Your task to perform on an android device: move a message to another label in the gmail app Image 0: 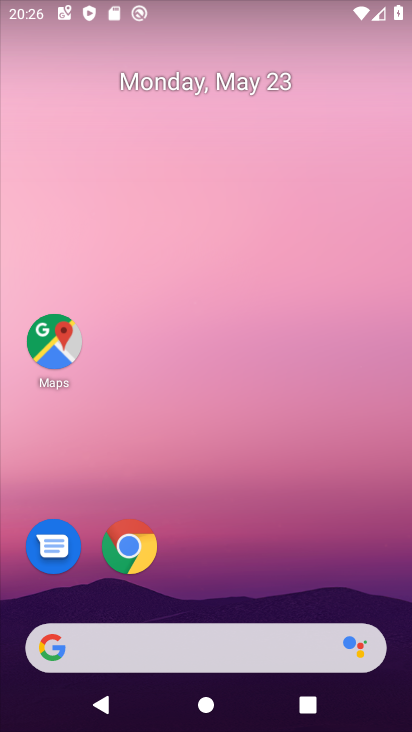
Step 0: drag from (385, 582) to (384, 187)
Your task to perform on an android device: move a message to another label in the gmail app Image 1: 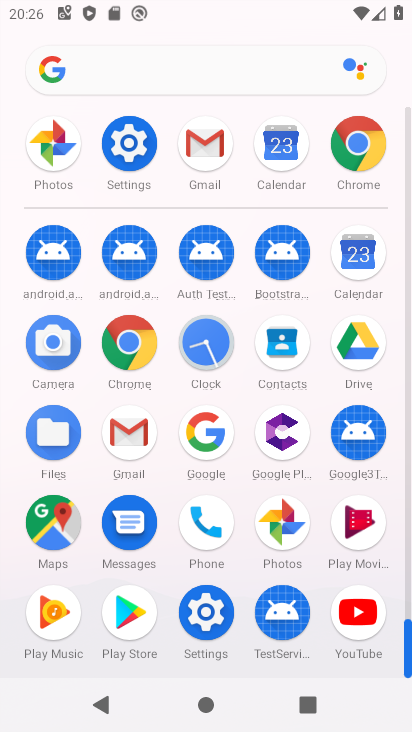
Step 1: click (130, 434)
Your task to perform on an android device: move a message to another label in the gmail app Image 2: 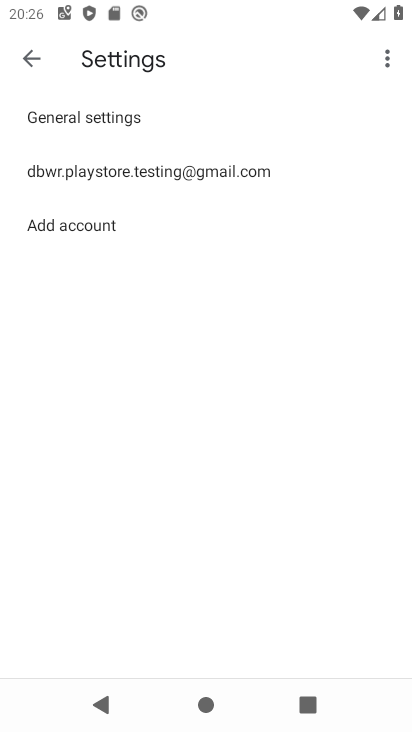
Step 2: click (26, 66)
Your task to perform on an android device: move a message to another label in the gmail app Image 3: 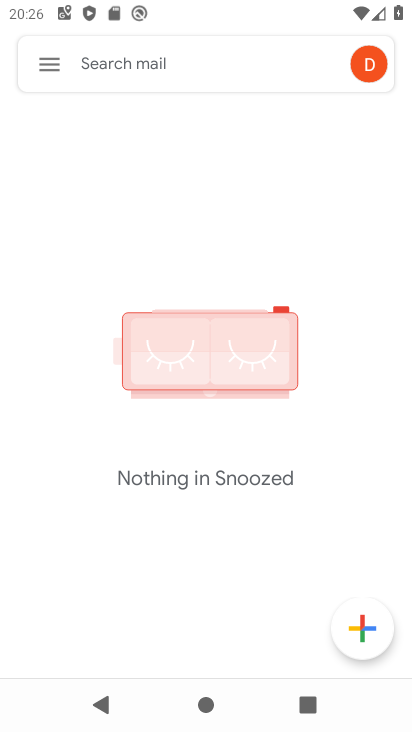
Step 3: click (56, 60)
Your task to perform on an android device: move a message to another label in the gmail app Image 4: 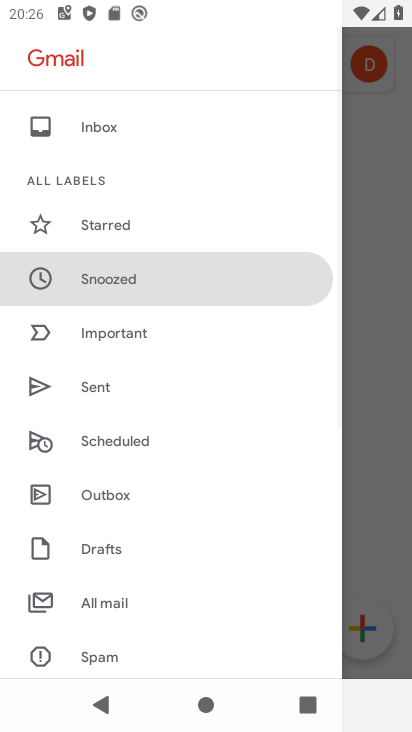
Step 4: drag from (250, 519) to (246, 422)
Your task to perform on an android device: move a message to another label in the gmail app Image 5: 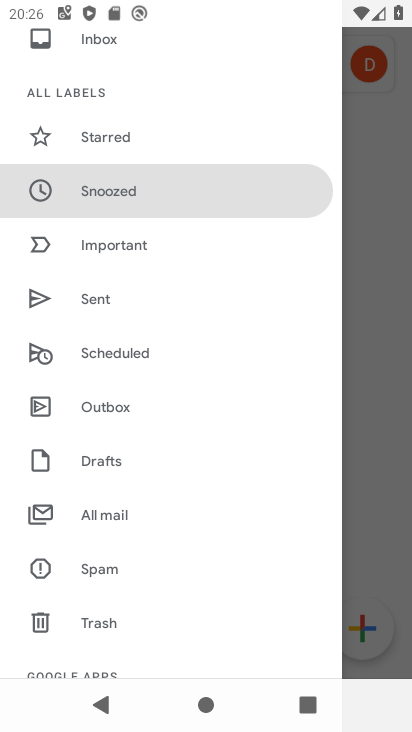
Step 5: drag from (263, 542) to (266, 446)
Your task to perform on an android device: move a message to another label in the gmail app Image 6: 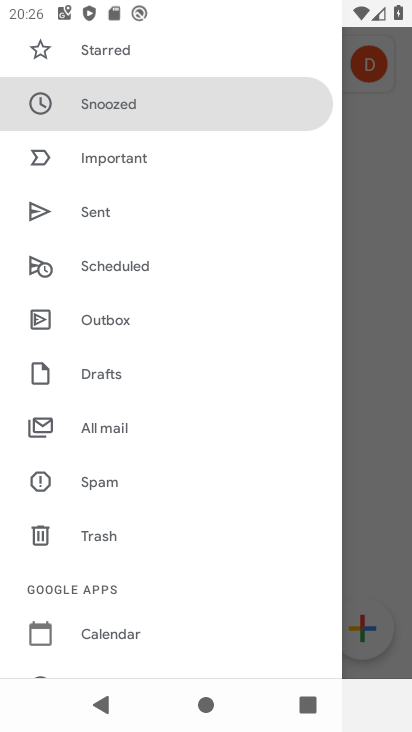
Step 6: drag from (271, 563) to (277, 447)
Your task to perform on an android device: move a message to another label in the gmail app Image 7: 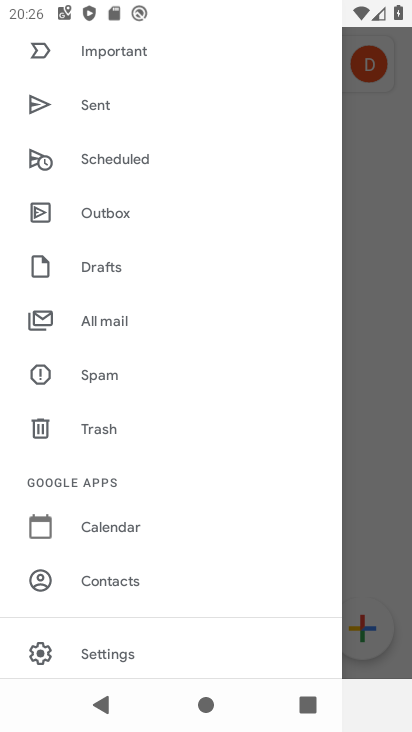
Step 7: drag from (278, 569) to (288, 440)
Your task to perform on an android device: move a message to another label in the gmail app Image 8: 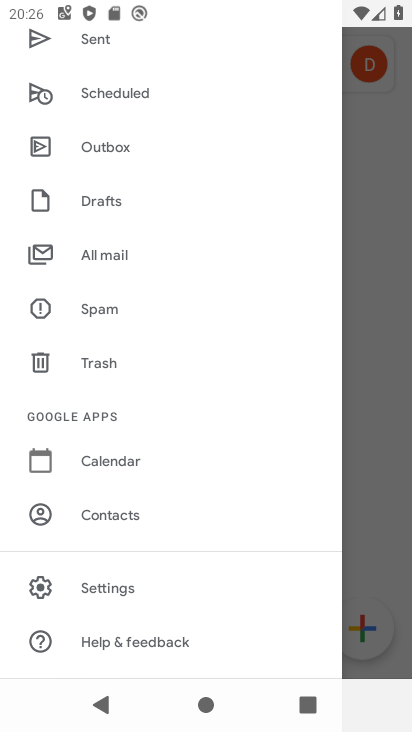
Step 8: drag from (298, 556) to (325, 432)
Your task to perform on an android device: move a message to another label in the gmail app Image 9: 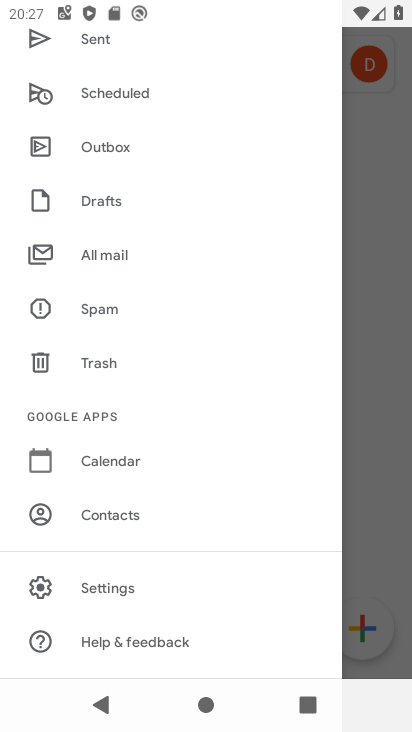
Step 9: drag from (295, 298) to (294, 389)
Your task to perform on an android device: move a message to another label in the gmail app Image 10: 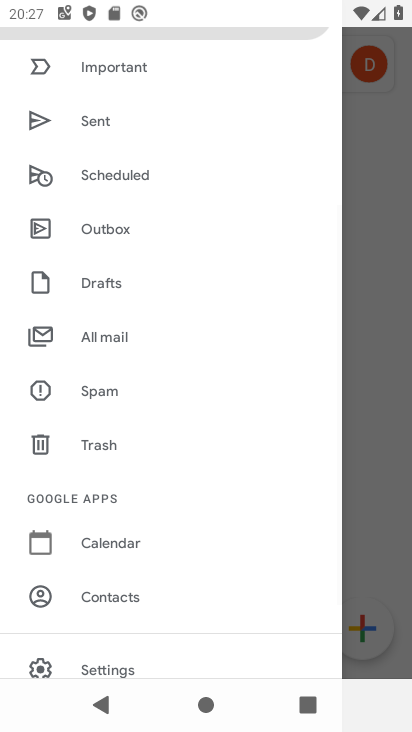
Step 10: drag from (286, 258) to (278, 380)
Your task to perform on an android device: move a message to another label in the gmail app Image 11: 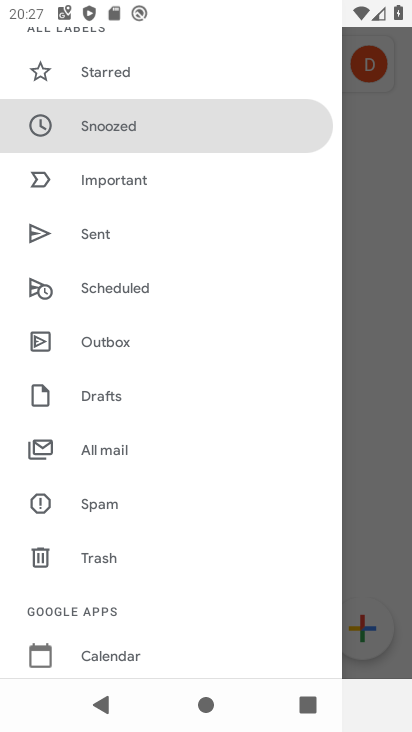
Step 11: drag from (273, 265) to (272, 433)
Your task to perform on an android device: move a message to another label in the gmail app Image 12: 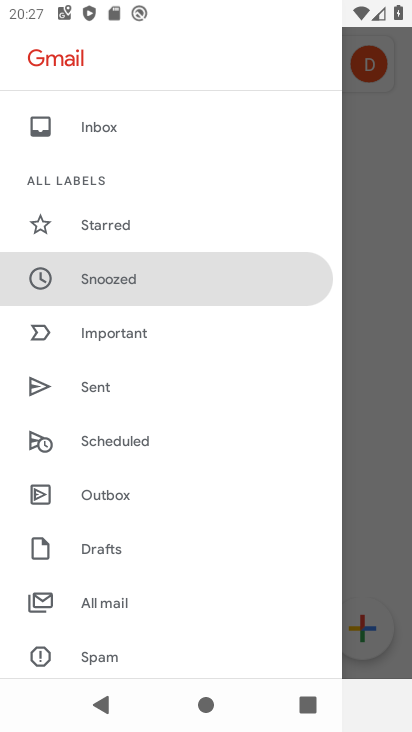
Step 12: click (124, 135)
Your task to perform on an android device: move a message to another label in the gmail app Image 13: 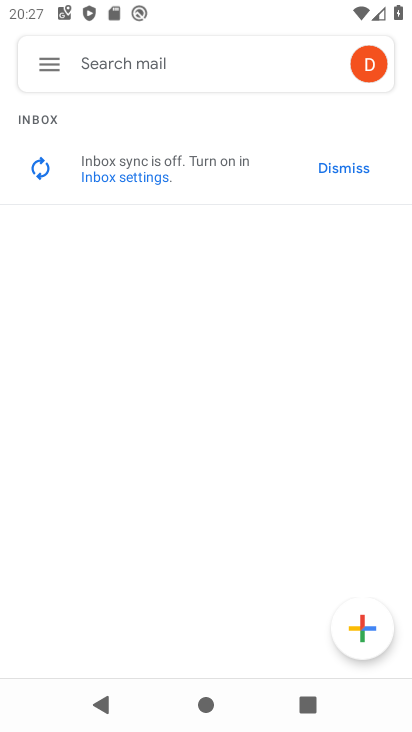
Step 13: task complete